Your task to perform on an android device: What is the news today? Image 0: 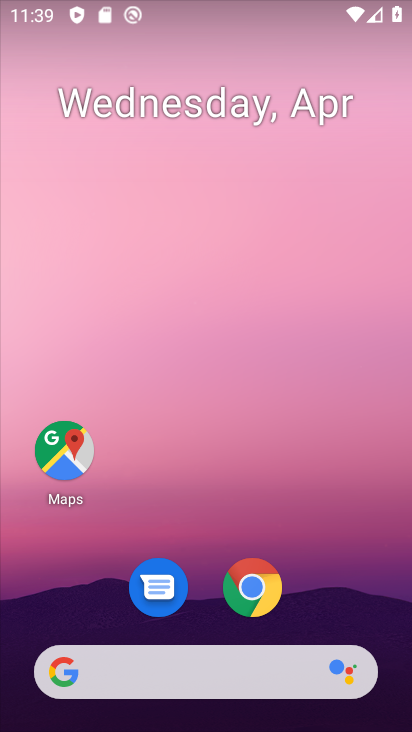
Step 0: click (270, 601)
Your task to perform on an android device: What is the news today? Image 1: 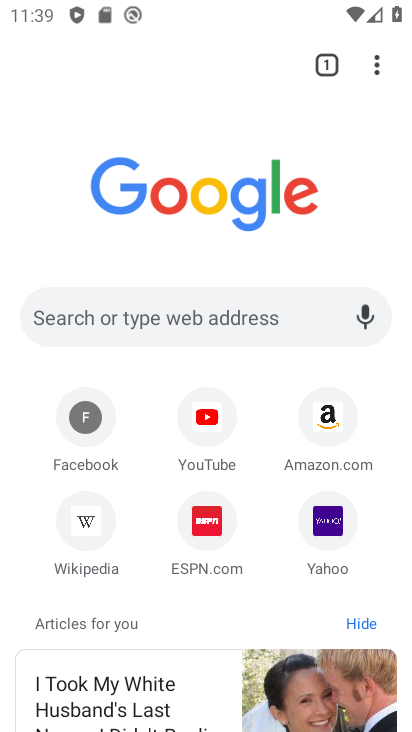
Step 1: task complete